Your task to perform on an android device: refresh tabs in the chrome app Image 0: 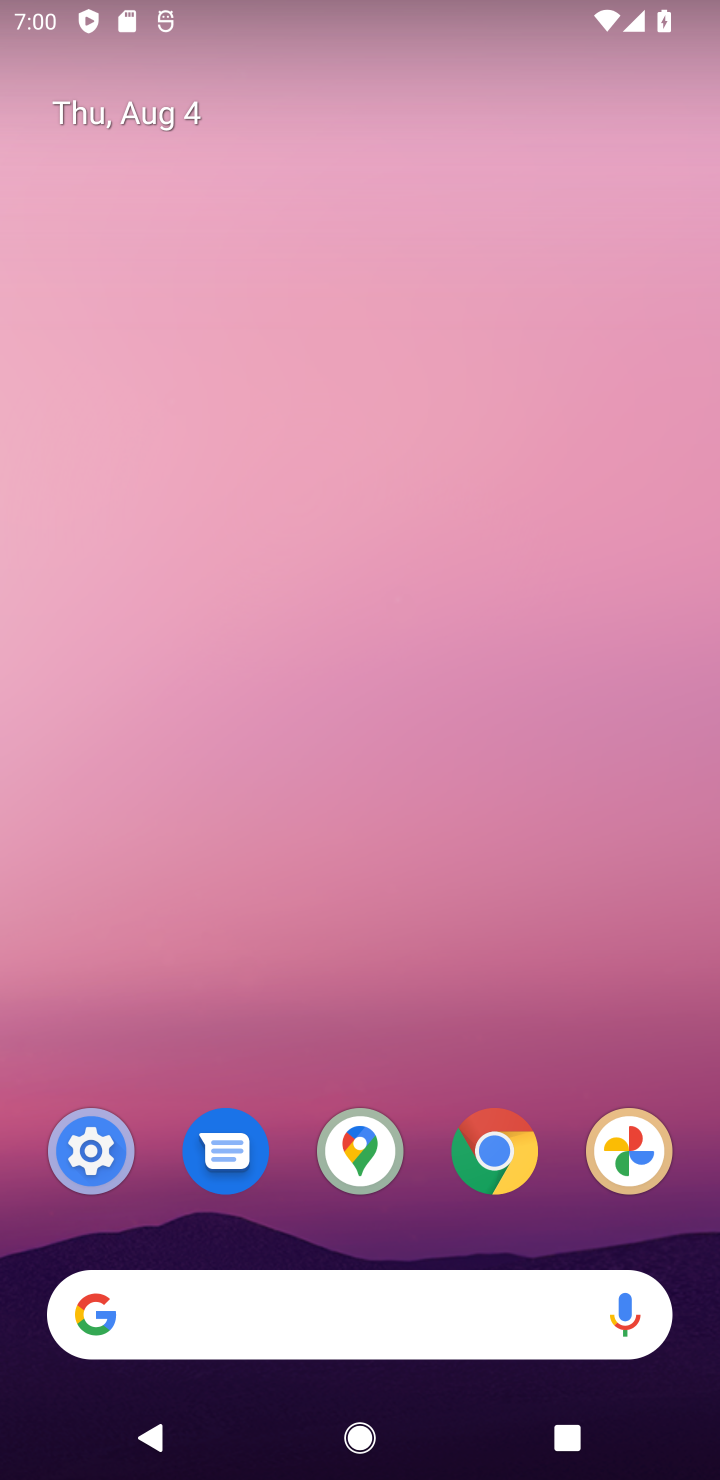
Step 0: click (504, 1141)
Your task to perform on an android device: refresh tabs in the chrome app Image 1: 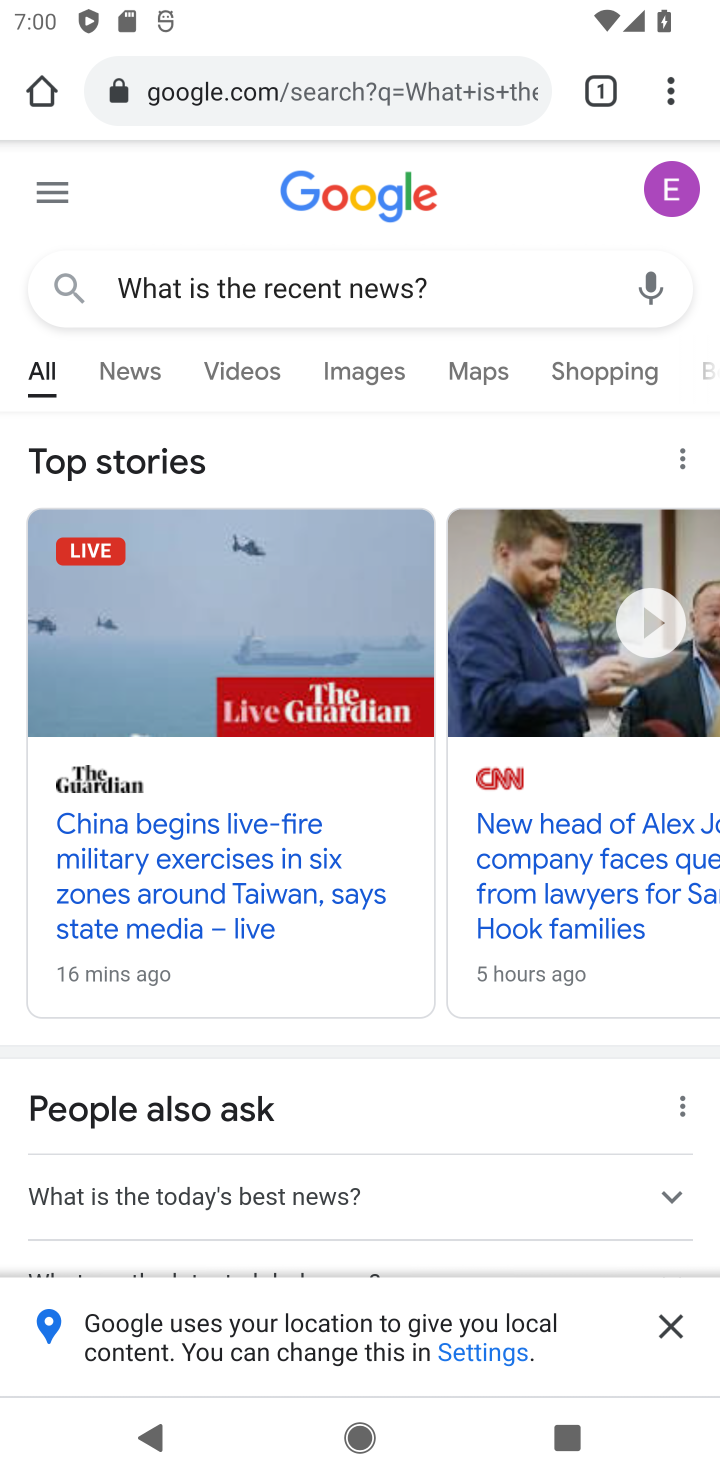
Step 1: click (656, 81)
Your task to perform on an android device: refresh tabs in the chrome app Image 2: 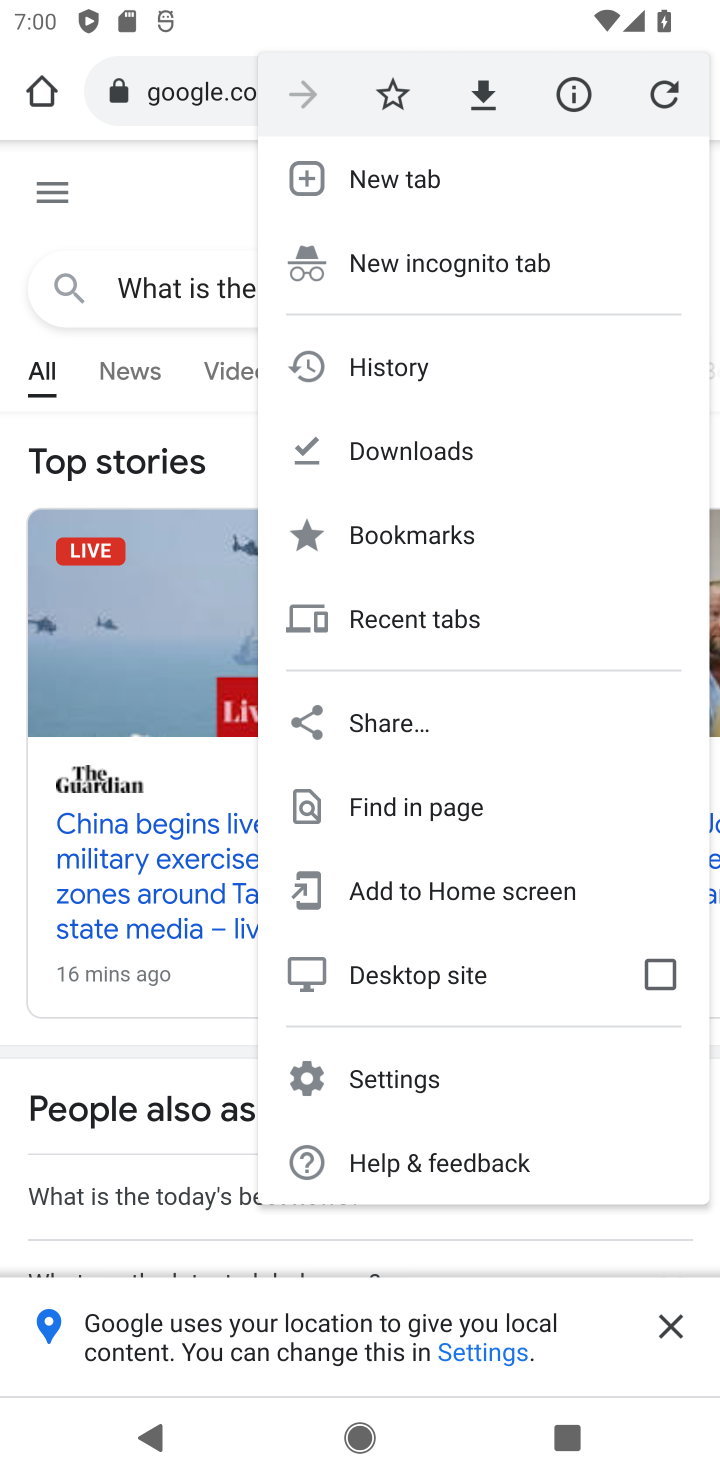
Step 2: click (666, 99)
Your task to perform on an android device: refresh tabs in the chrome app Image 3: 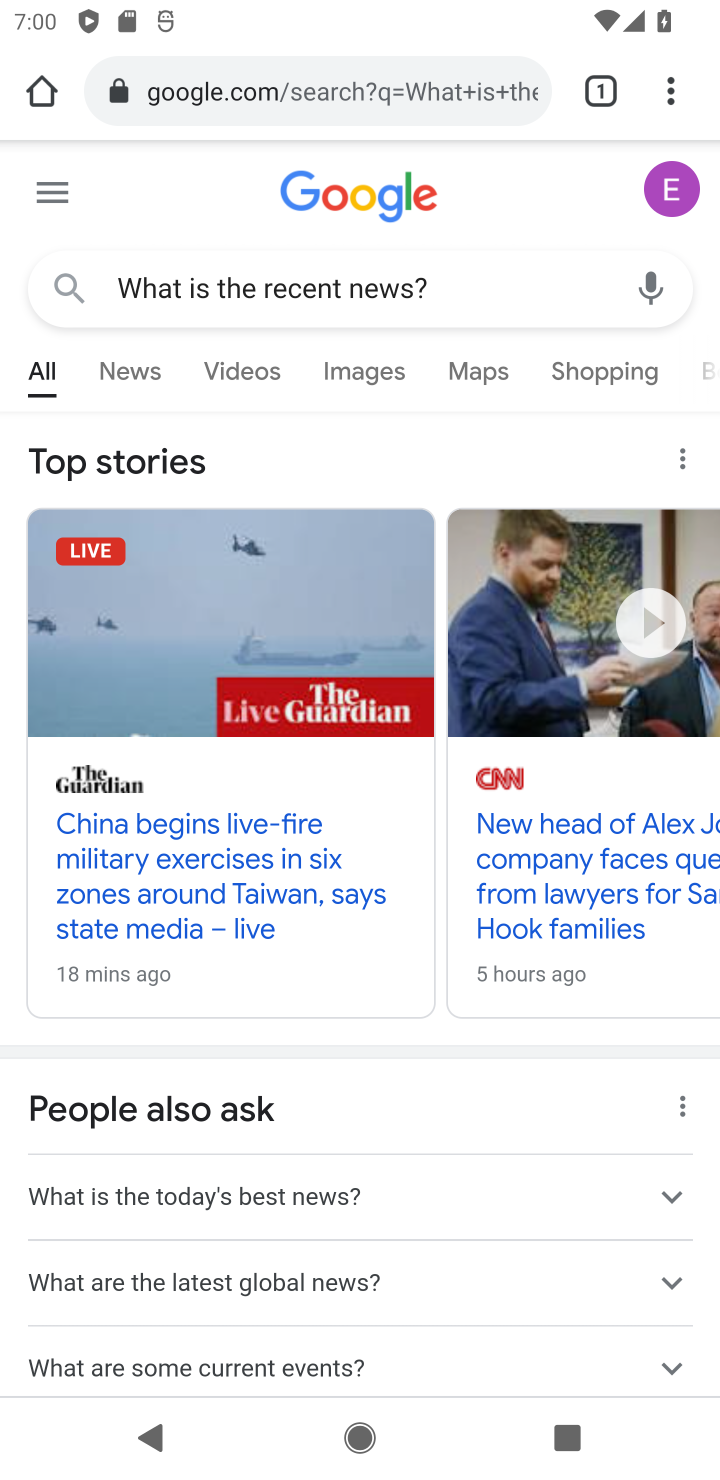
Step 3: task complete